Your task to perform on an android device: toggle data saver in the chrome app Image 0: 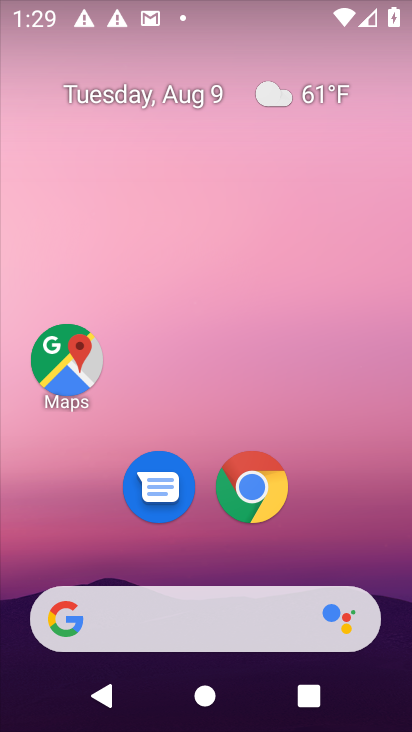
Step 0: drag from (179, 319) to (120, 70)
Your task to perform on an android device: toggle data saver in the chrome app Image 1: 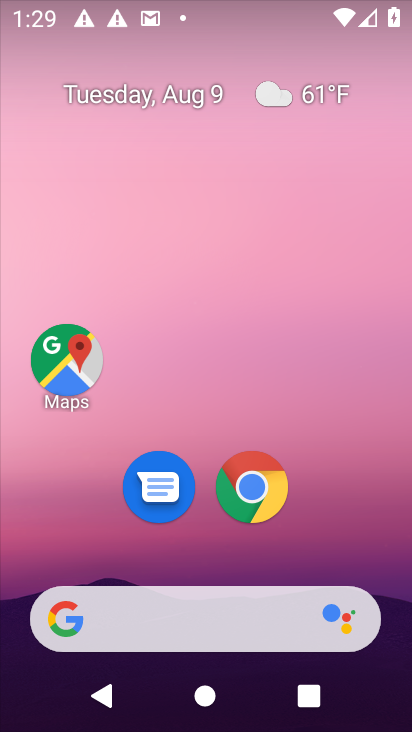
Step 1: drag from (325, 493) to (381, 14)
Your task to perform on an android device: toggle data saver in the chrome app Image 2: 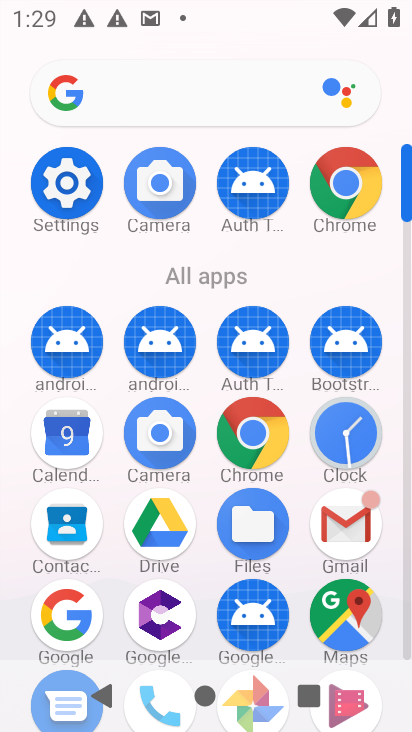
Step 2: click (277, 449)
Your task to perform on an android device: toggle data saver in the chrome app Image 3: 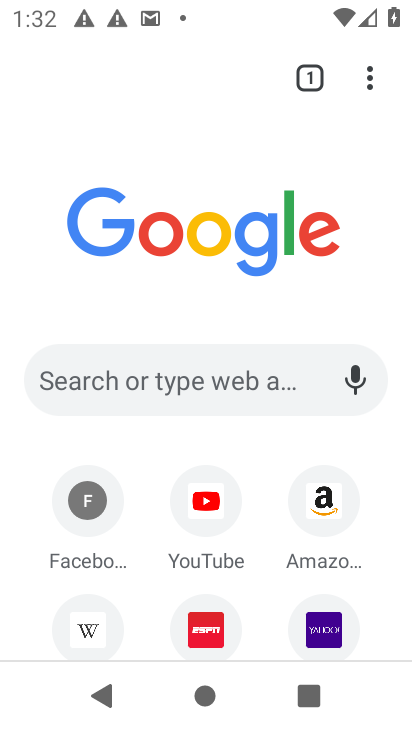
Step 3: click (366, 78)
Your task to perform on an android device: toggle data saver in the chrome app Image 4: 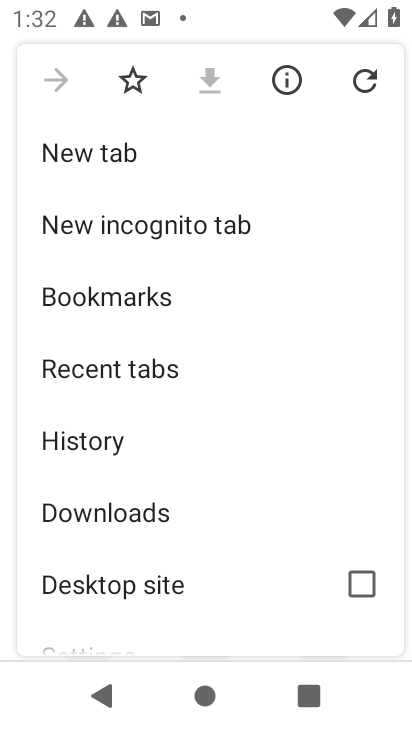
Step 4: click (111, 644)
Your task to perform on an android device: toggle data saver in the chrome app Image 5: 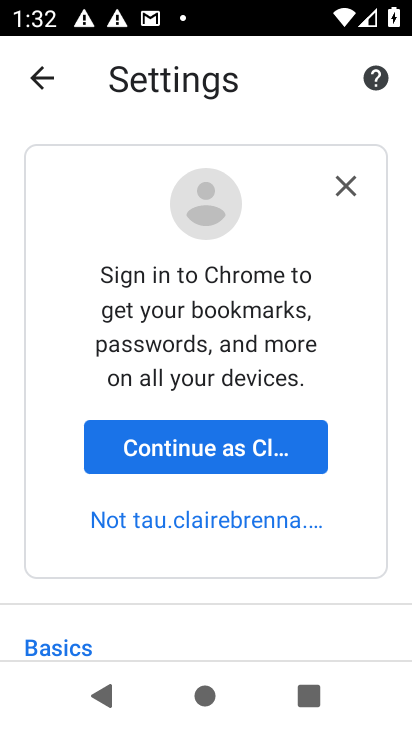
Step 5: drag from (286, 628) to (372, 5)
Your task to perform on an android device: toggle data saver in the chrome app Image 6: 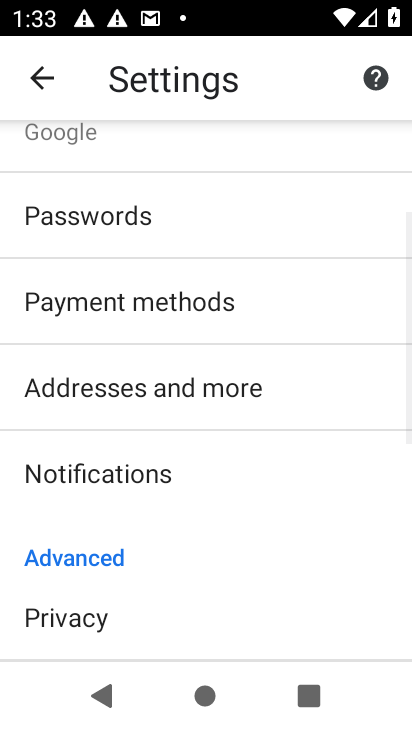
Step 6: drag from (280, 629) to (325, 294)
Your task to perform on an android device: toggle data saver in the chrome app Image 7: 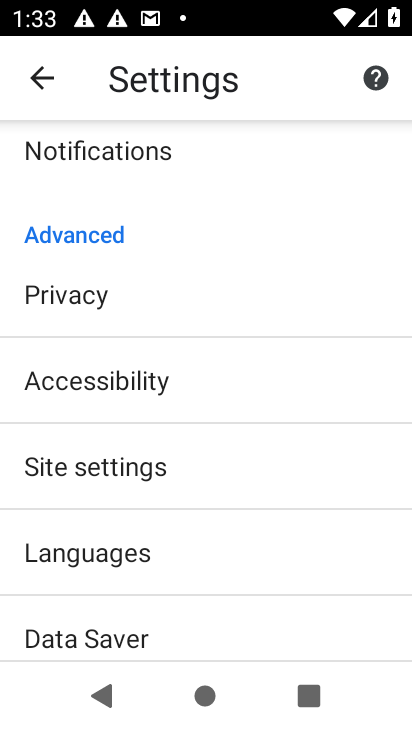
Step 7: click (127, 633)
Your task to perform on an android device: toggle data saver in the chrome app Image 8: 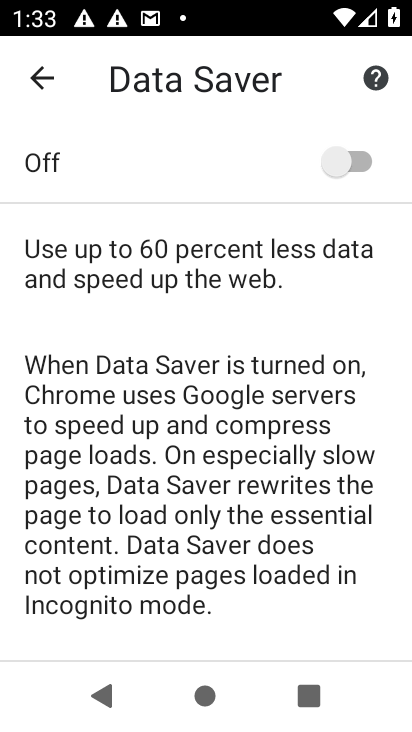
Step 8: click (358, 160)
Your task to perform on an android device: toggle data saver in the chrome app Image 9: 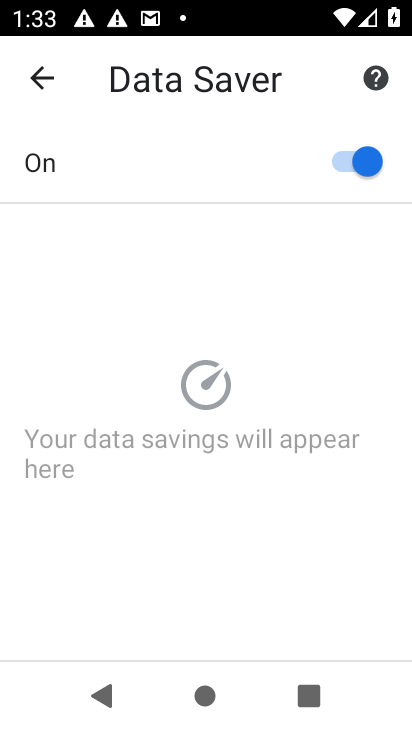
Step 9: task complete